Your task to perform on an android device: set the timer Image 0: 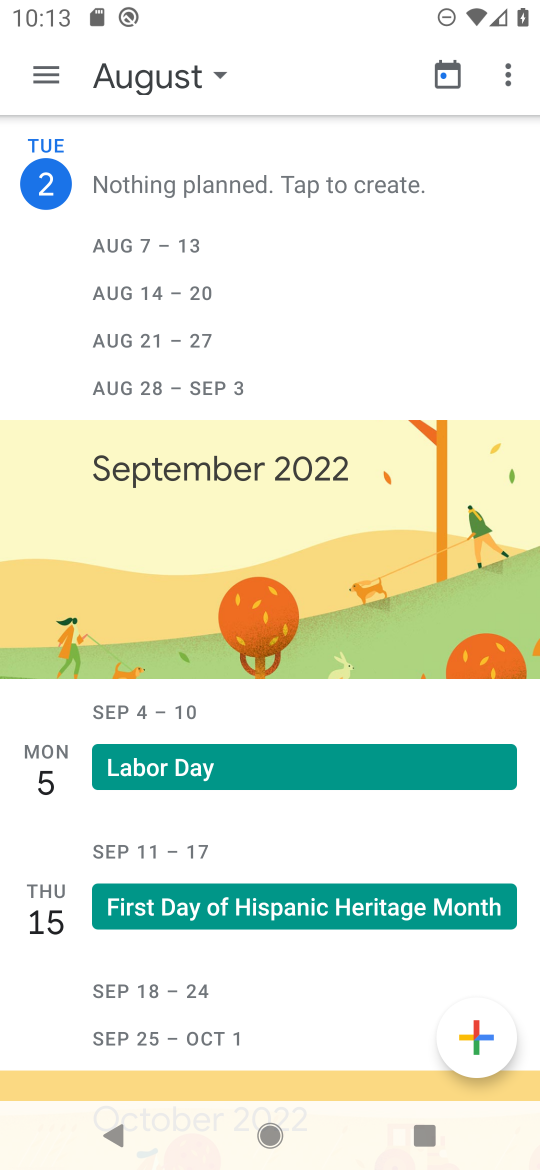
Step 0: press home button
Your task to perform on an android device: set the timer Image 1: 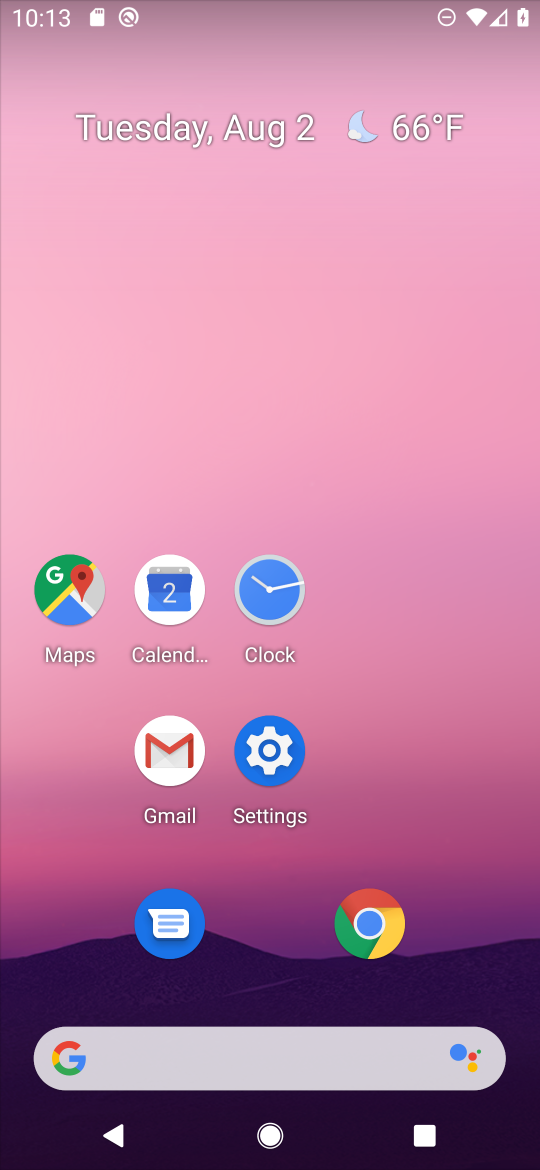
Step 1: click (275, 605)
Your task to perform on an android device: set the timer Image 2: 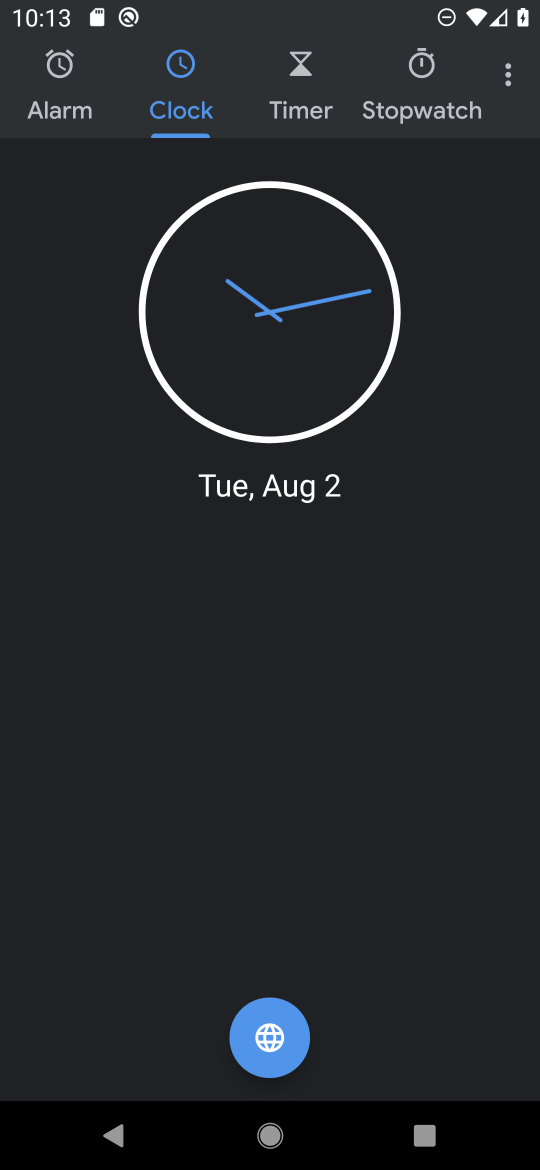
Step 2: click (302, 86)
Your task to perform on an android device: set the timer Image 3: 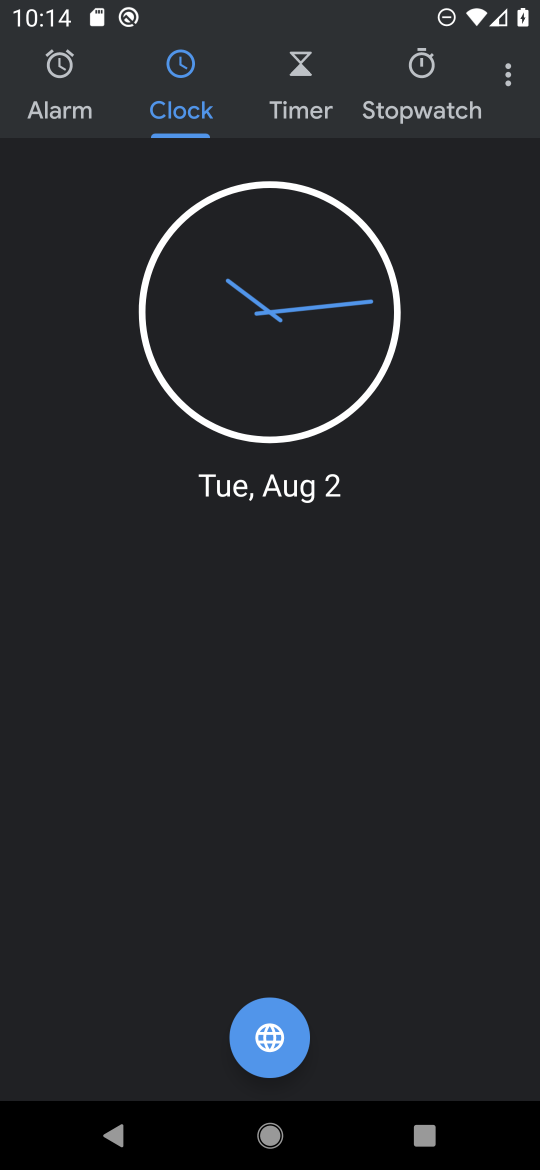
Step 3: click (301, 98)
Your task to perform on an android device: set the timer Image 4: 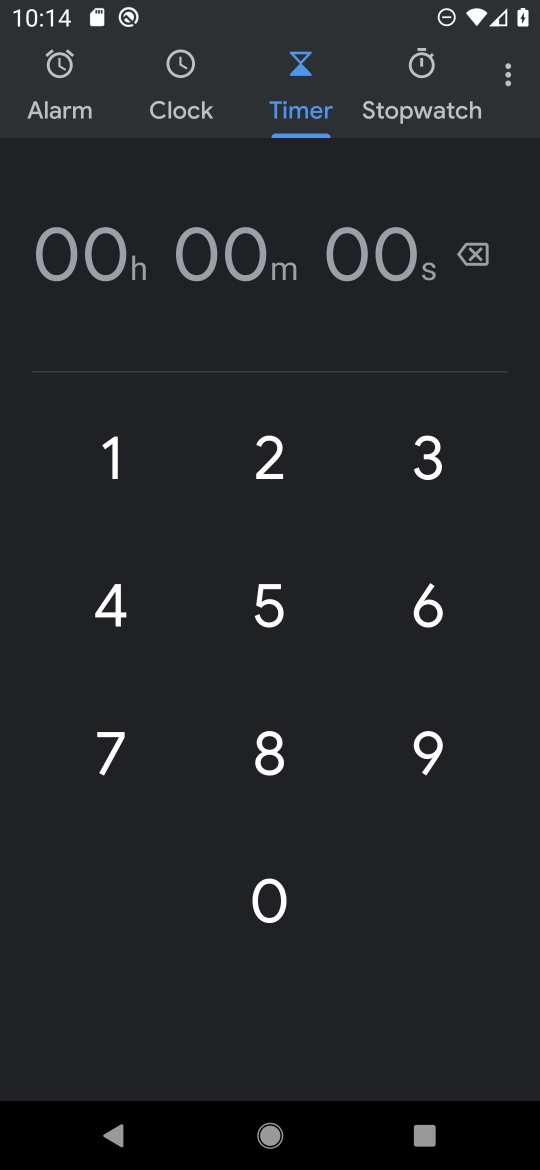
Step 4: click (303, 90)
Your task to perform on an android device: set the timer Image 5: 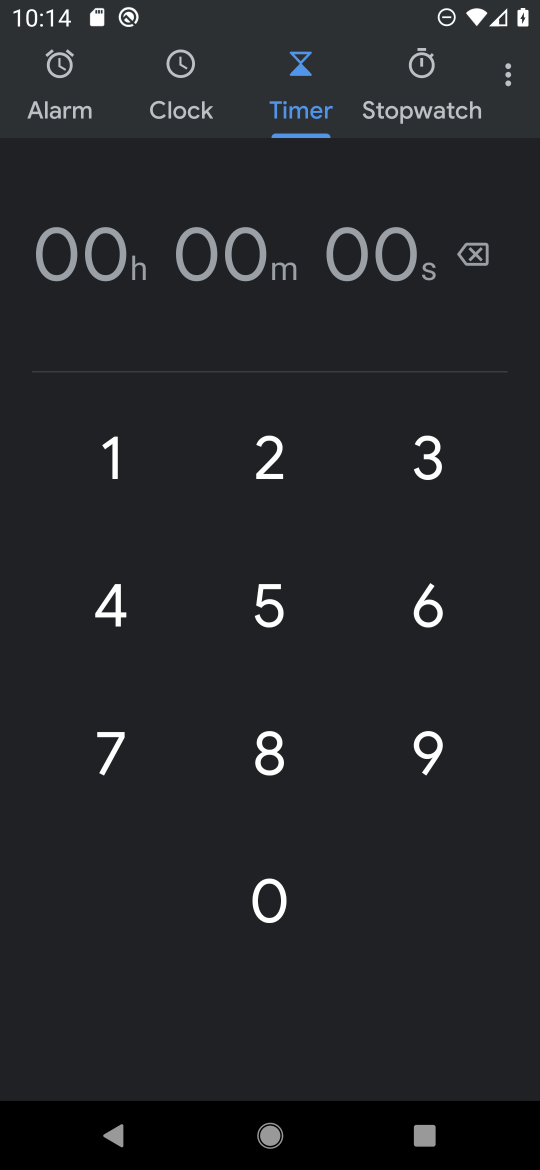
Step 5: click (271, 614)
Your task to perform on an android device: set the timer Image 6: 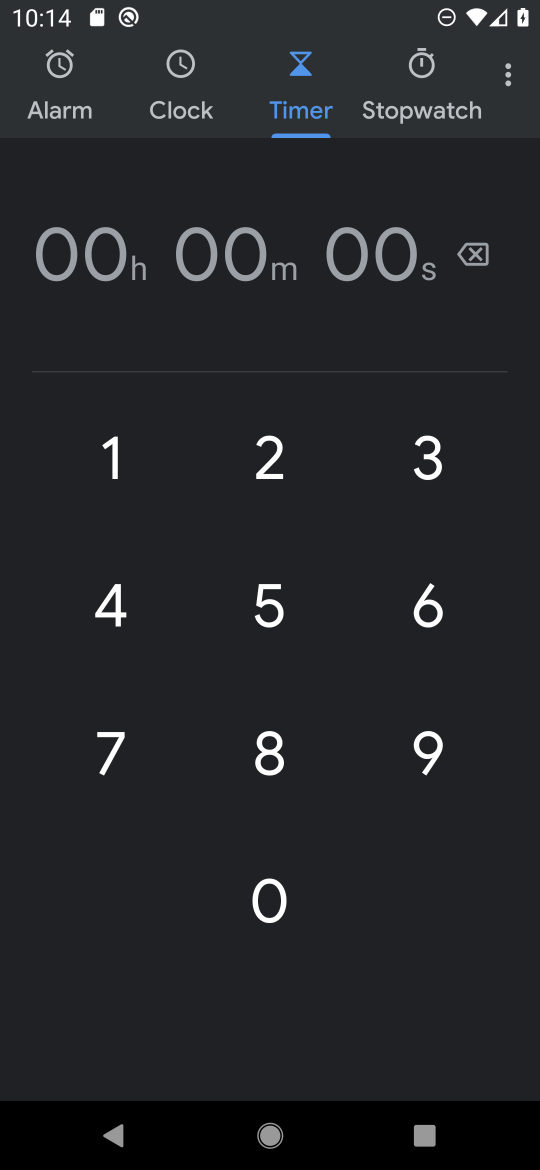
Step 6: click (271, 614)
Your task to perform on an android device: set the timer Image 7: 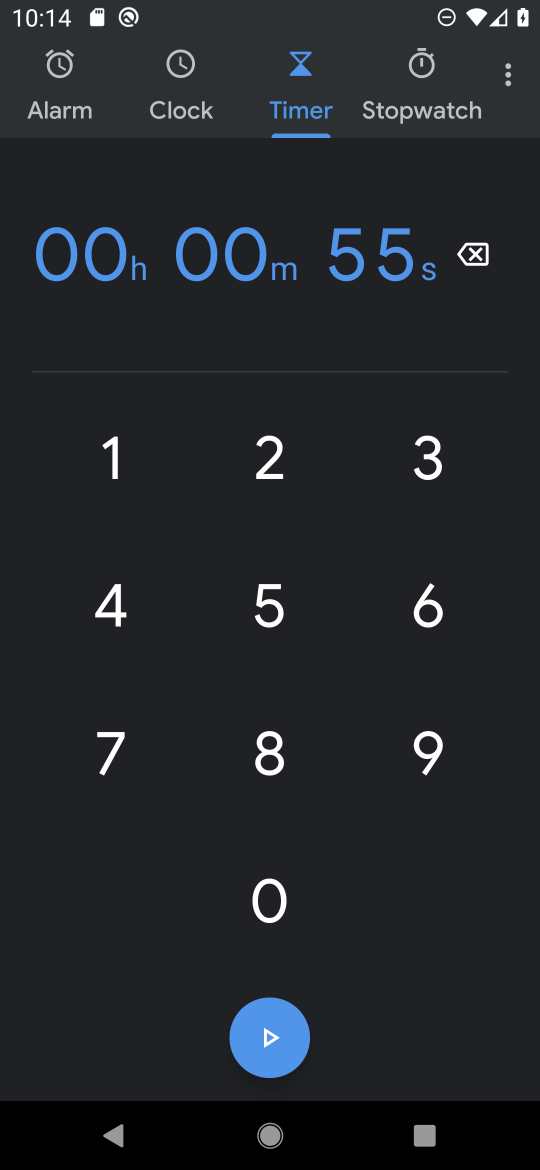
Step 7: click (273, 1039)
Your task to perform on an android device: set the timer Image 8: 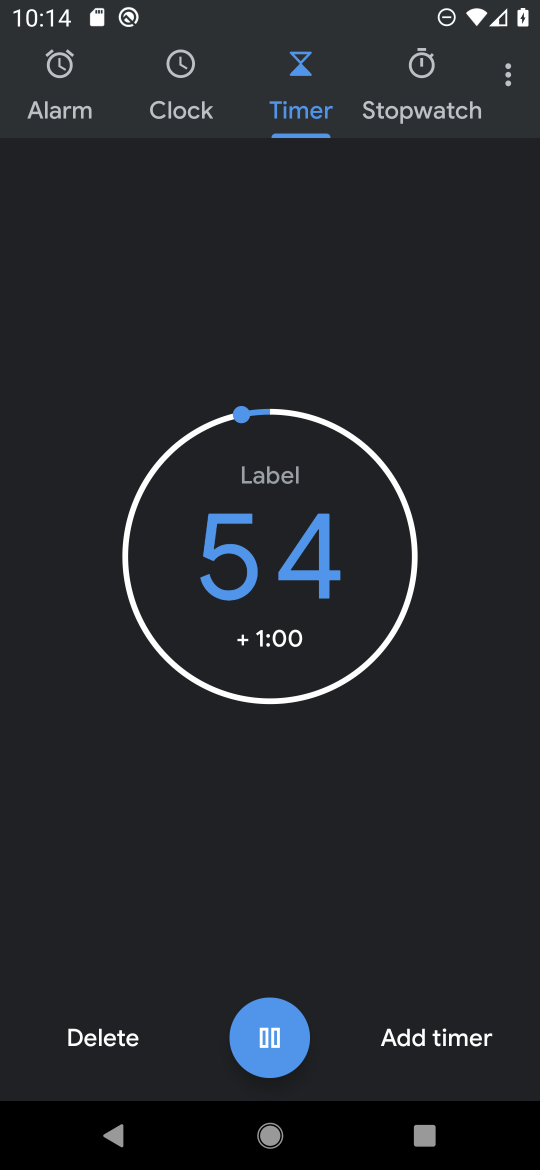
Step 8: task complete